Your task to perform on an android device: add a label to a message in the gmail app Image 0: 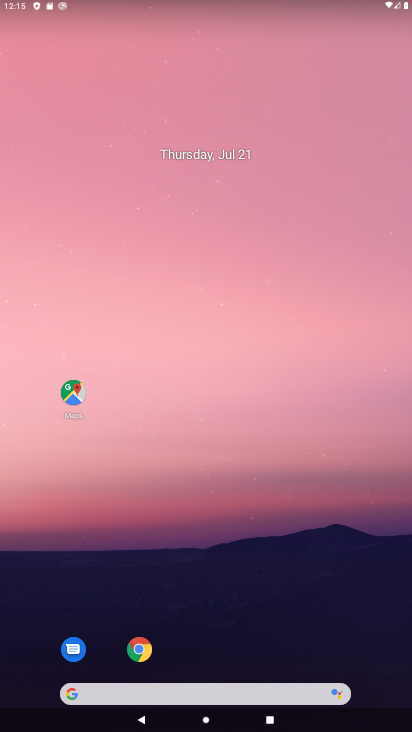
Step 0: task complete